Your task to perform on an android device: set an alarm Image 0: 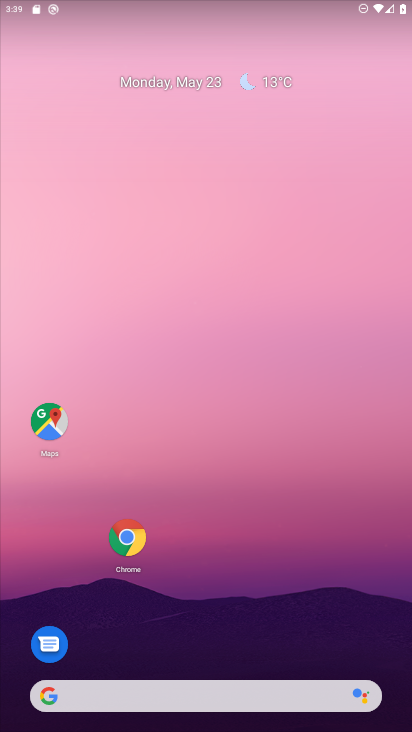
Step 0: drag from (256, 571) to (253, 175)
Your task to perform on an android device: set an alarm Image 1: 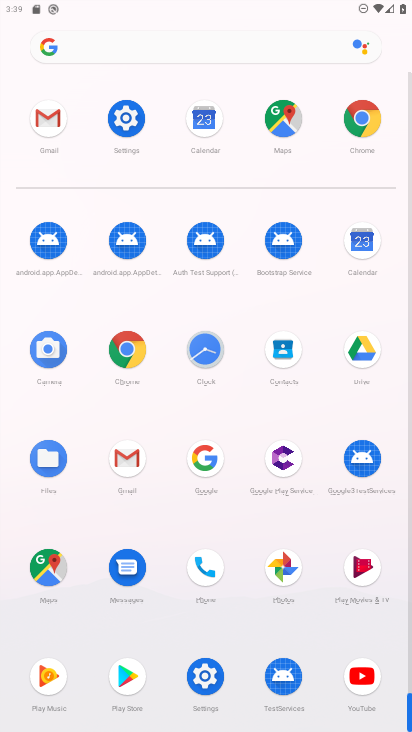
Step 1: click (205, 352)
Your task to perform on an android device: set an alarm Image 2: 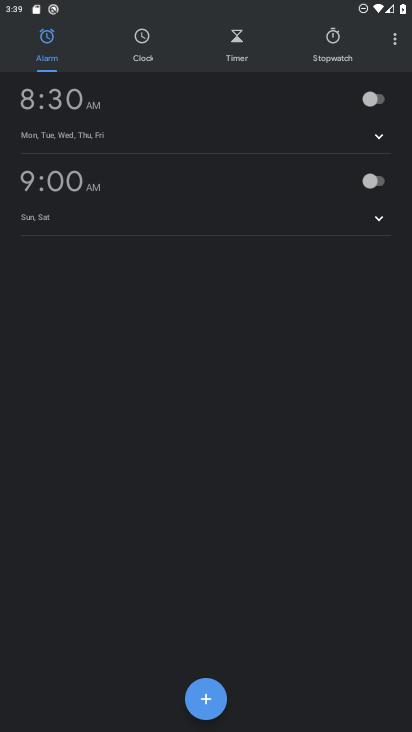
Step 2: click (213, 703)
Your task to perform on an android device: set an alarm Image 3: 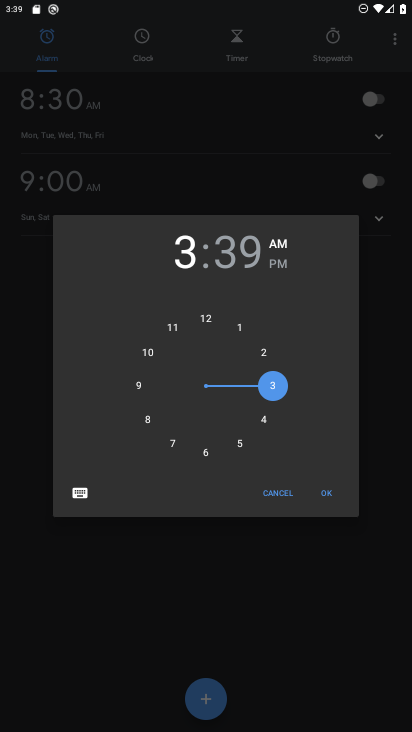
Step 3: click (324, 496)
Your task to perform on an android device: set an alarm Image 4: 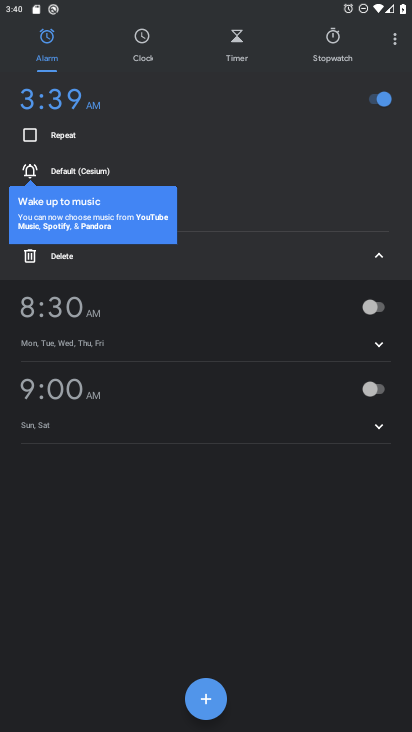
Step 4: click (206, 698)
Your task to perform on an android device: set an alarm Image 5: 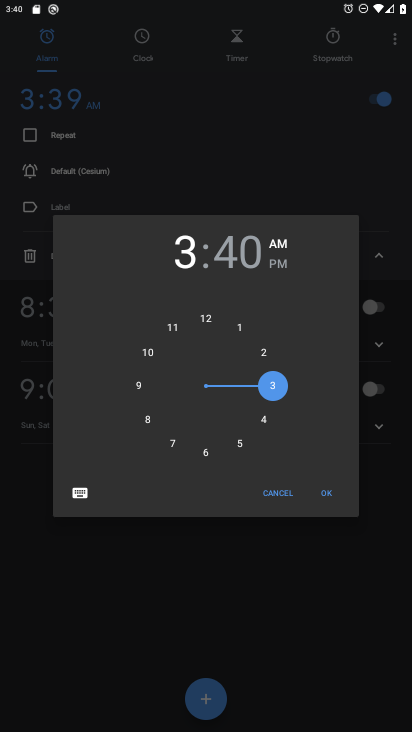
Step 5: click (323, 496)
Your task to perform on an android device: set an alarm Image 6: 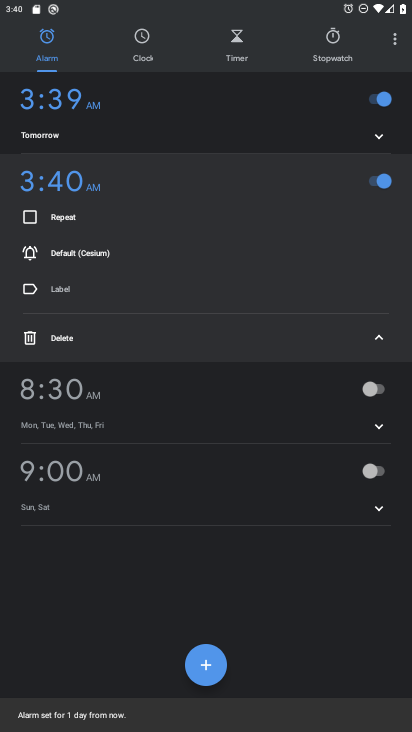
Step 6: task complete